Your task to perform on an android device: Clear the shopping cart on ebay.com. Add "asus zenbook" to the cart on ebay.com Image 0: 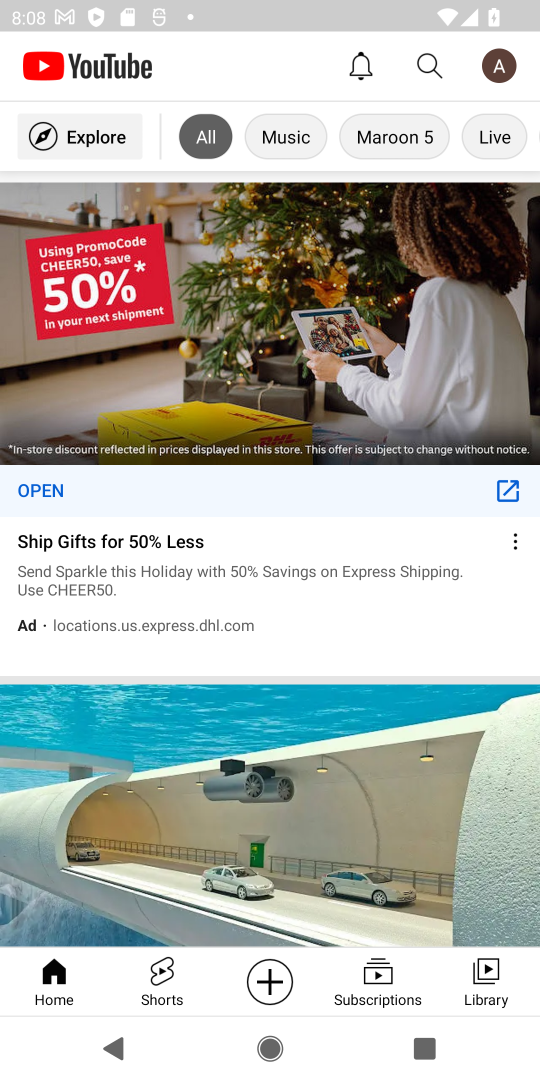
Step 0: press home button
Your task to perform on an android device: Clear the shopping cart on ebay.com. Add "asus zenbook" to the cart on ebay.com Image 1: 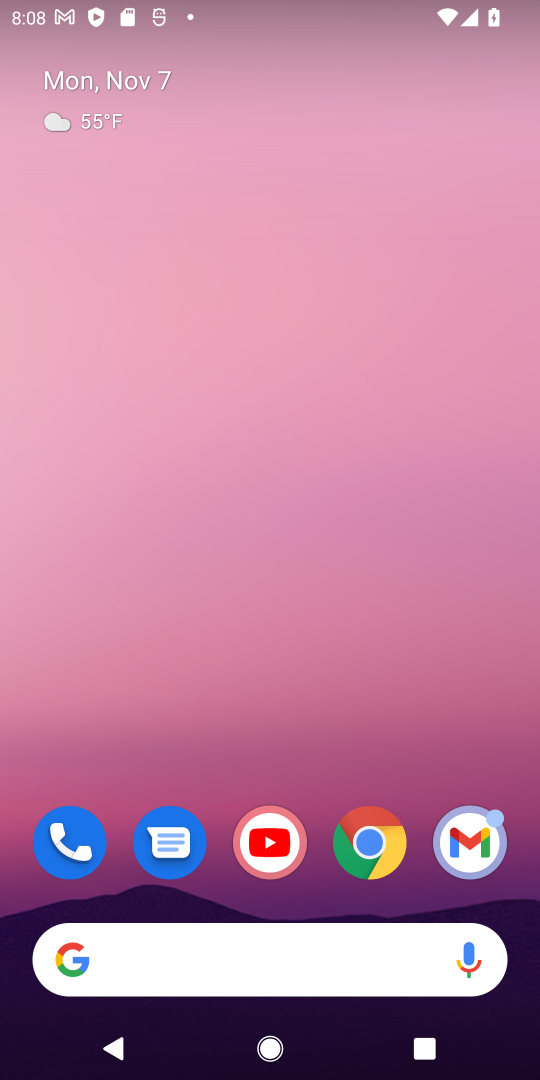
Step 1: click (364, 828)
Your task to perform on an android device: Clear the shopping cart on ebay.com. Add "asus zenbook" to the cart on ebay.com Image 2: 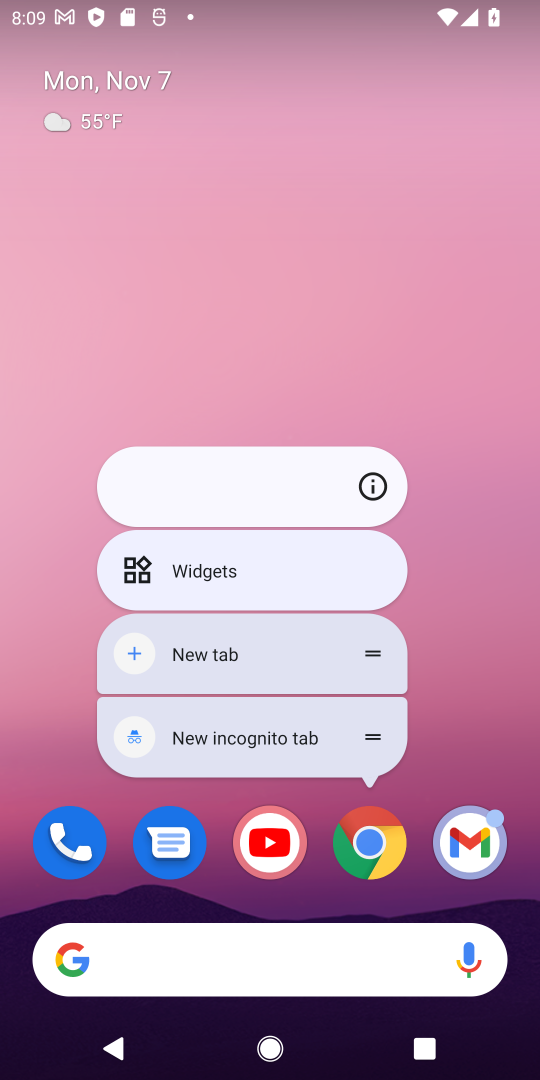
Step 2: click (367, 844)
Your task to perform on an android device: Clear the shopping cart on ebay.com. Add "asus zenbook" to the cart on ebay.com Image 3: 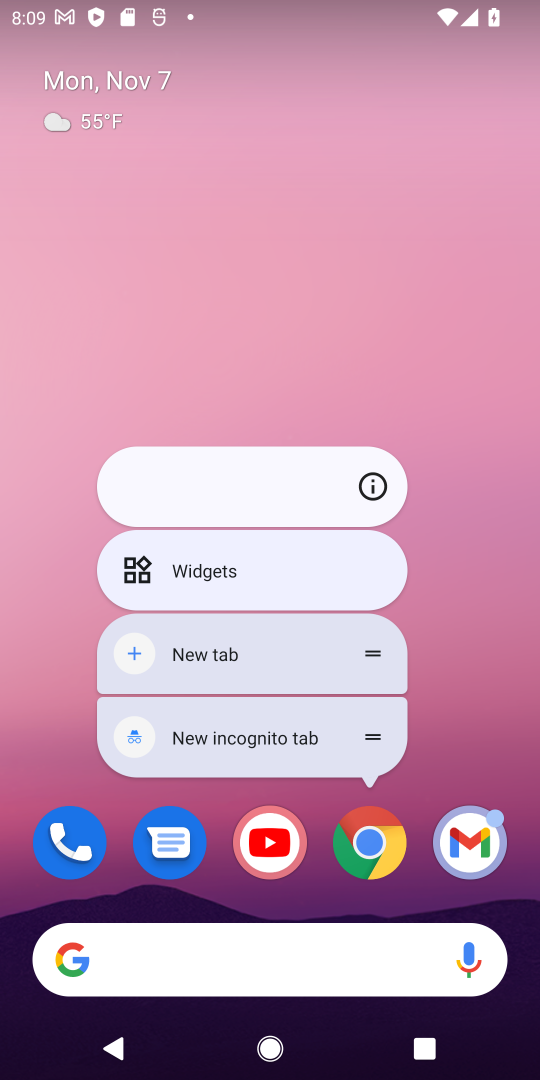
Step 3: click (367, 844)
Your task to perform on an android device: Clear the shopping cart on ebay.com. Add "asus zenbook" to the cart on ebay.com Image 4: 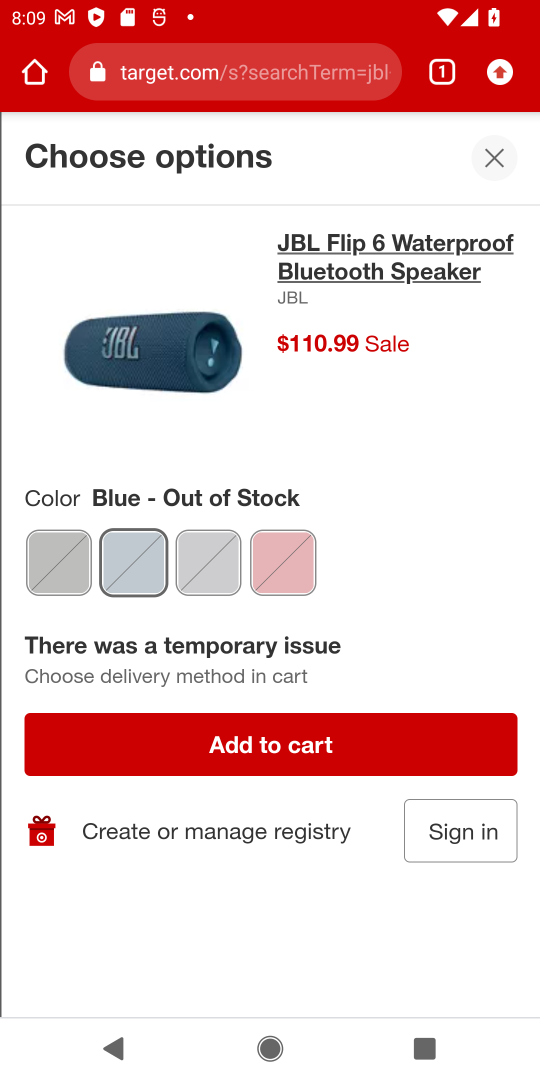
Step 4: press home button
Your task to perform on an android device: Clear the shopping cart on ebay.com. Add "asus zenbook" to the cart on ebay.com Image 5: 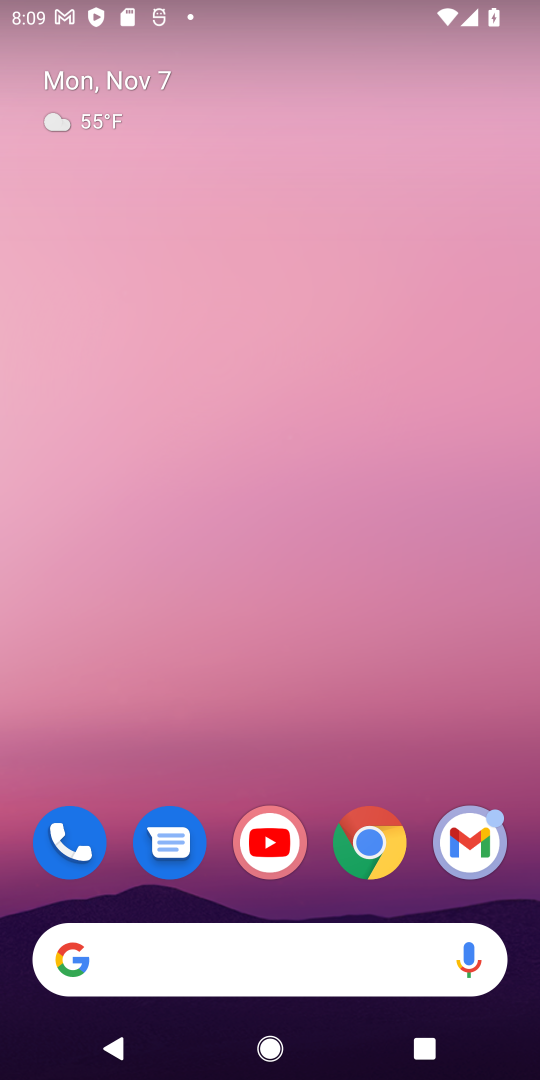
Step 5: click (377, 859)
Your task to perform on an android device: Clear the shopping cart on ebay.com. Add "asus zenbook" to the cart on ebay.com Image 6: 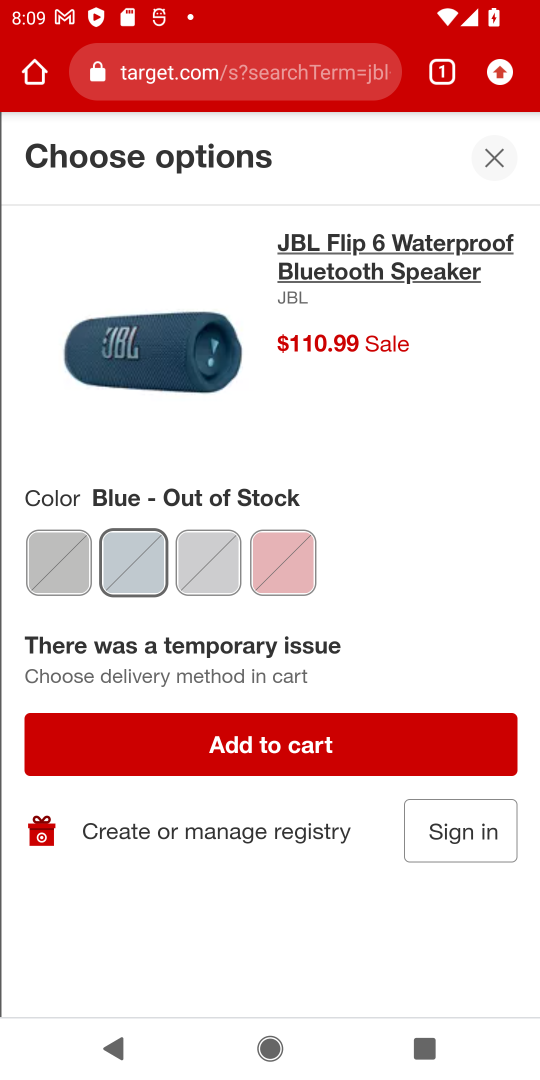
Step 6: click (264, 59)
Your task to perform on an android device: Clear the shopping cart on ebay.com. Add "asus zenbook" to the cart on ebay.com Image 7: 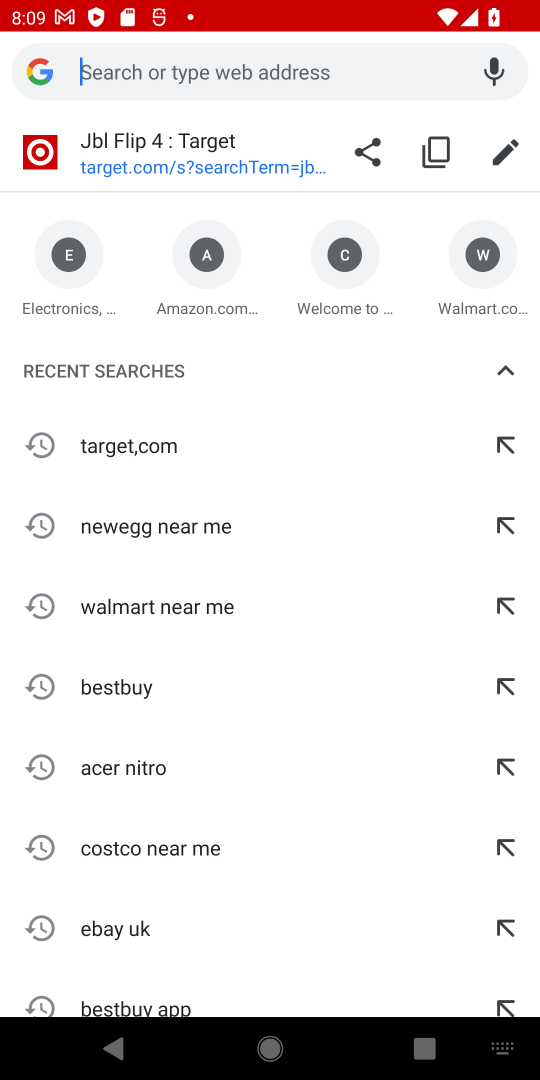
Step 7: click (60, 307)
Your task to perform on an android device: Clear the shopping cart on ebay.com. Add "asus zenbook" to the cart on ebay.com Image 8: 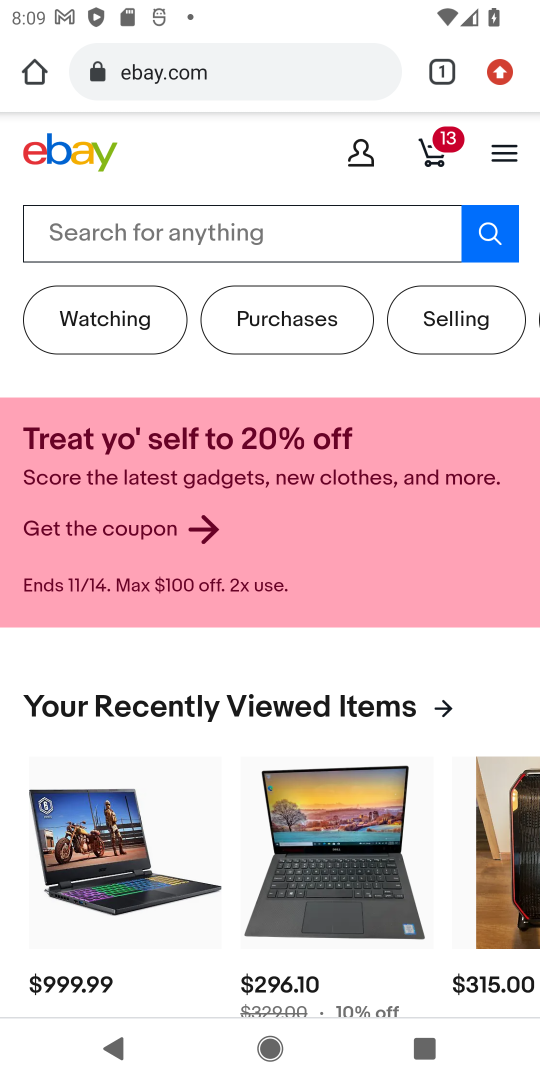
Step 8: click (178, 222)
Your task to perform on an android device: Clear the shopping cart on ebay.com. Add "asus zenbook" to the cart on ebay.com Image 9: 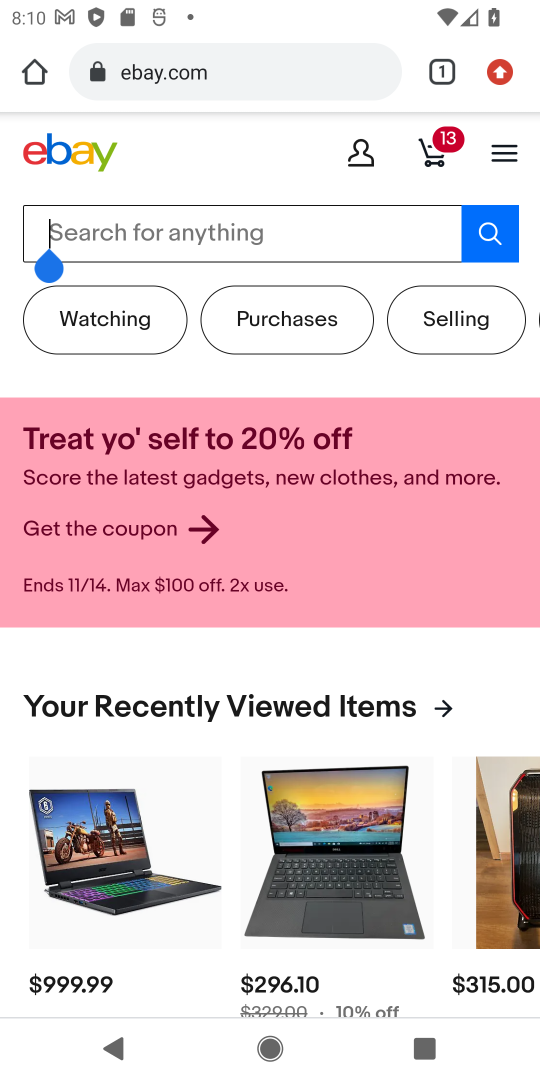
Step 9: type "asus zenbook"
Your task to perform on an android device: Clear the shopping cart on ebay.com. Add "asus zenbook" to the cart on ebay.com Image 10: 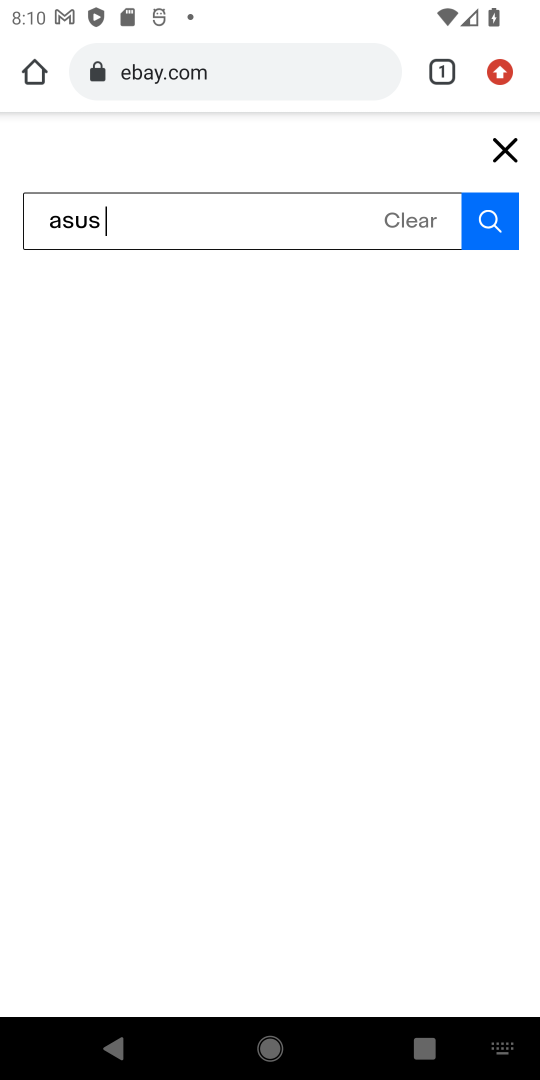
Step 10: press enter
Your task to perform on an android device: Clear the shopping cart on ebay.com. Add "asus zenbook" to the cart on ebay.com Image 11: 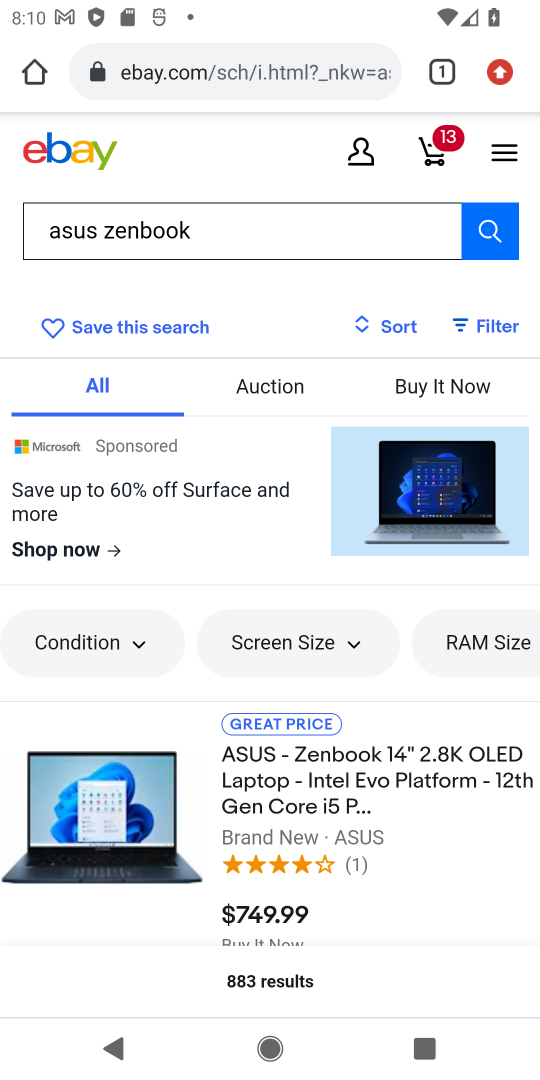
Step 11: drag from (185, 696) to (314, 155)
Your task to perform on an android device: Clear the shopping cart on ebay.com. Add "asus zenbook" to the cart on ebay.com Image 12: 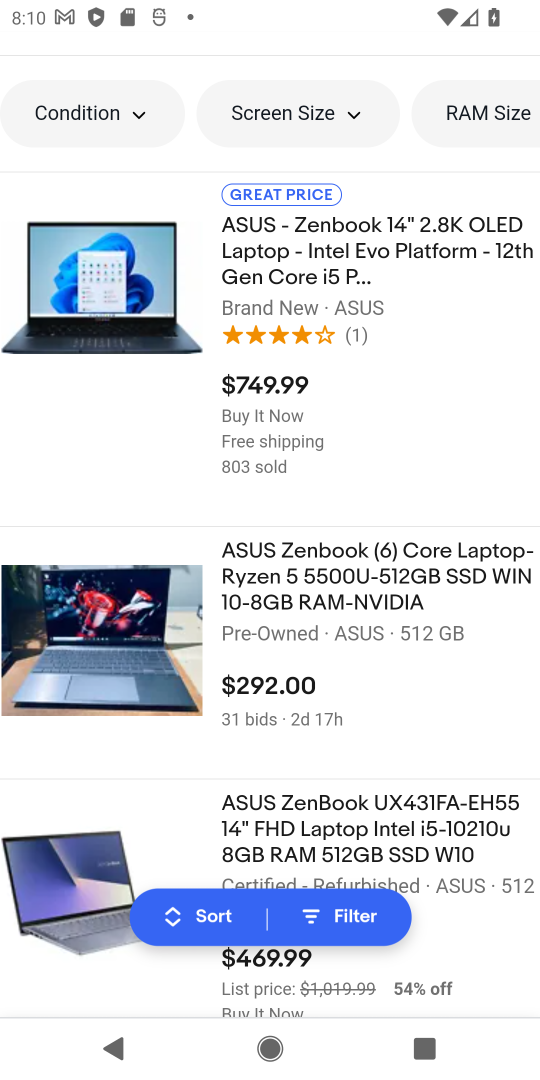
Step 12: drag from (437, 411) to (510, 983)
Your task to perform on an android device: Clear the shopping cart on ebay.com. Add "asus zenbook" to the cart on ebay.com Image 13: 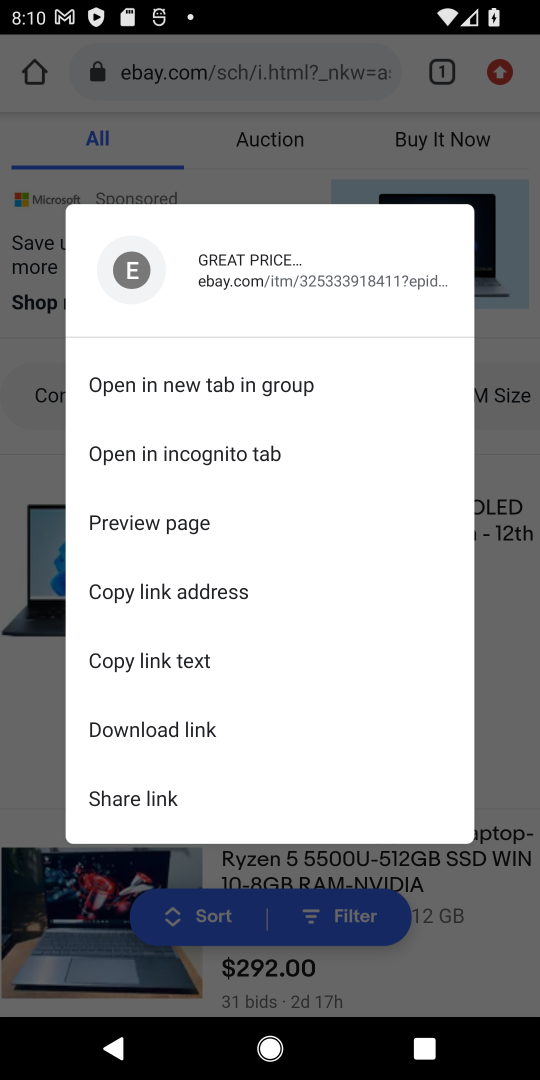
Step 13: click (513, 450)
Your task to perform on an android device: Clear the shopping cart on ebay.com. Add "asus zenbook" to the cart on ebay.com Image 14: 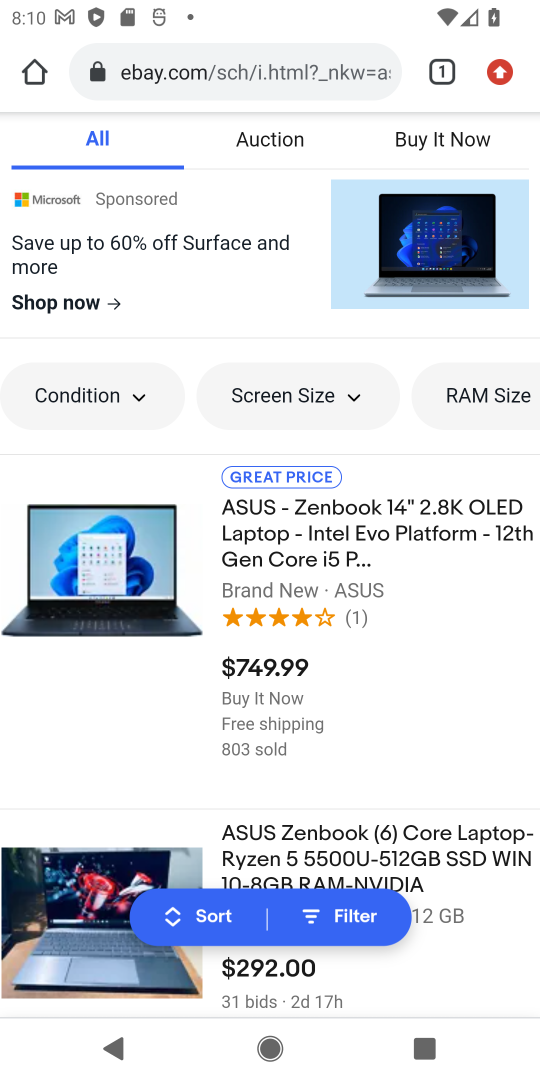
Step 14: drag from (194, 427) to (250, 885)
Your task to perform on an android device: Clear the shopping cart on ebay.com. Add "asus zenbook" to the cart on ebay.com Image 15: 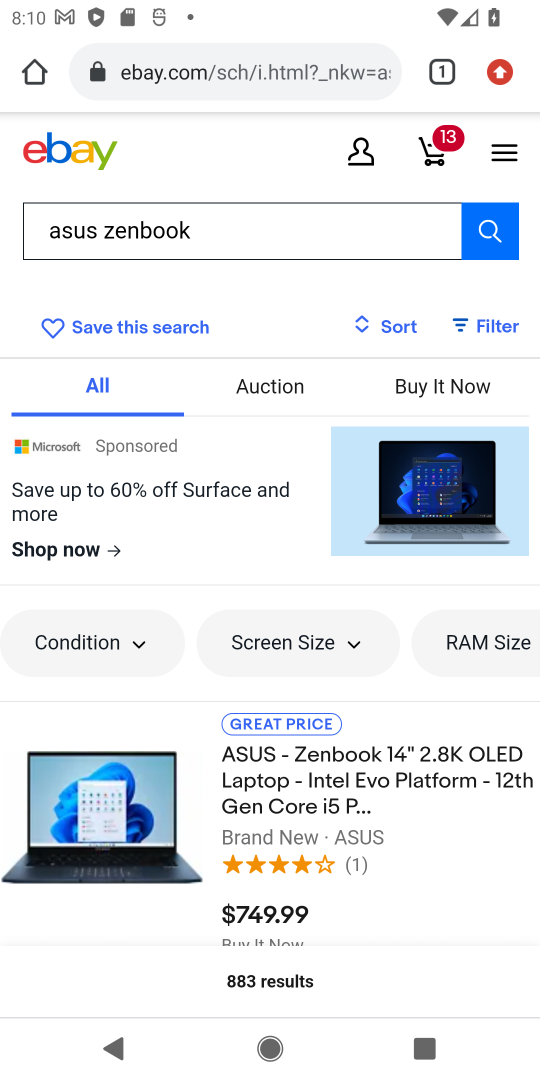
Step 15: drag from (204, 866) to (229, 366)
Your task to perform on an android device: Clear the shopping cart on ebay.com. Add "asus zenbook" to the cart on ebay.com Image 16: 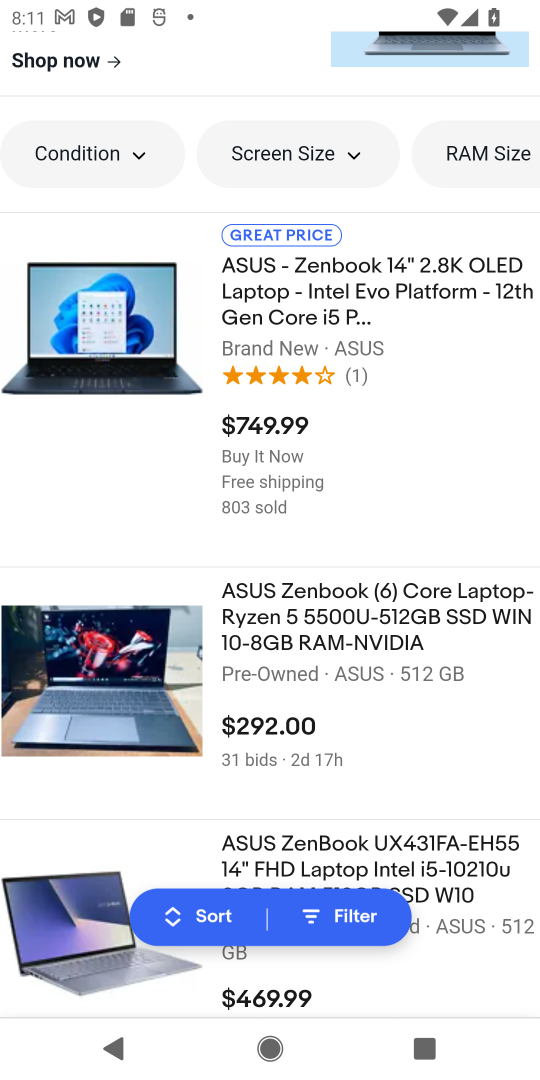
Step 16: click (359, 406)
Your task to perform on an android device: Clear the shopping cart on ebay.com. Add "asus zenbook" to the cart on ebay.com Image 17: 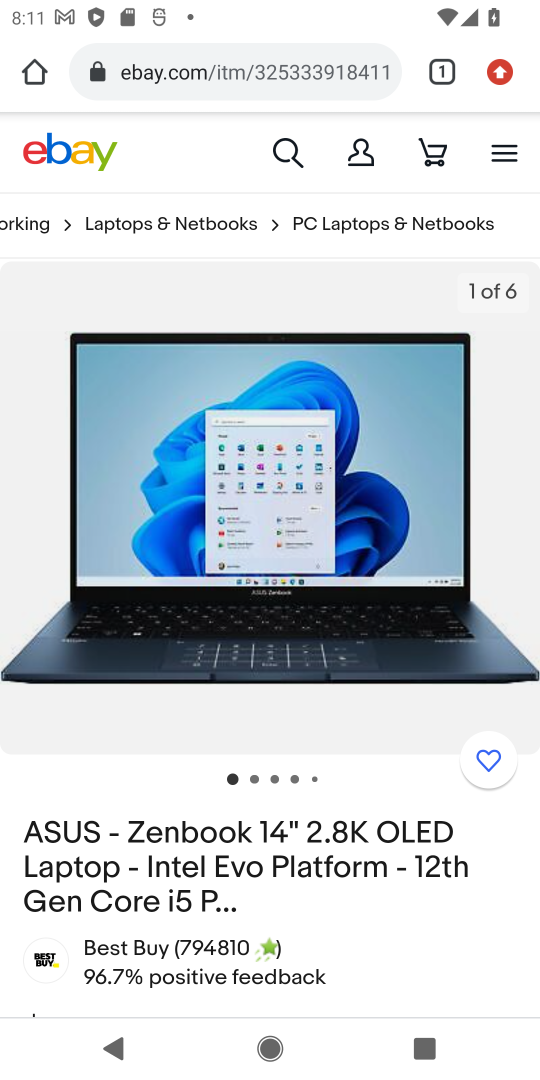
Step 17: drag from (284, 674) to (449, 25)
Your task to perform on an android device: Clear the shopping cart on ebay.com. Add "asus zenbook" to the cart on ebay.com Image 18: 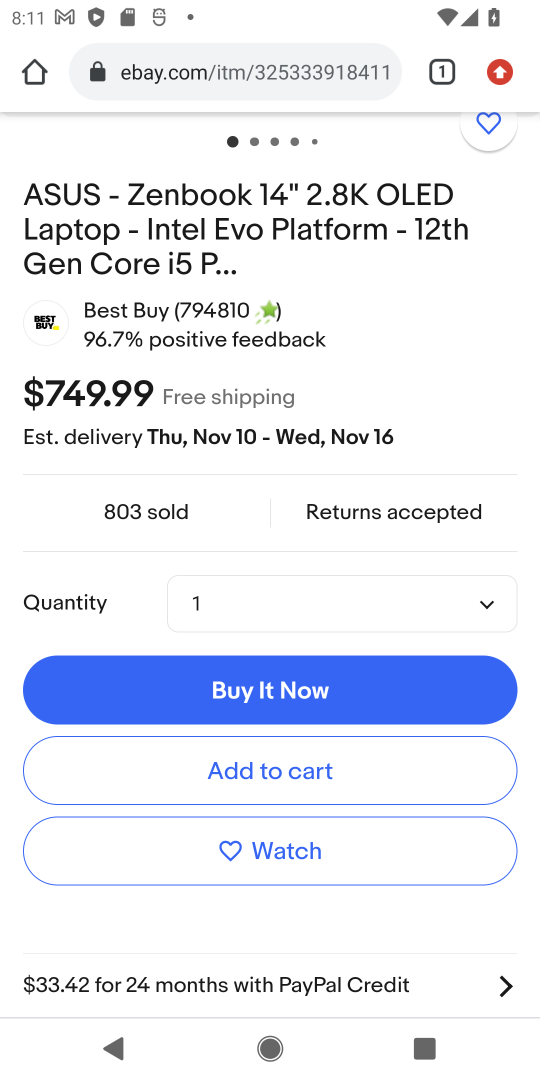
Step 18: click (280, 761)
Your task to perform on an android device: Clear the shopping cart on ebay.com. Add "asus zenbook" to the cart on ebay.com Image 19: 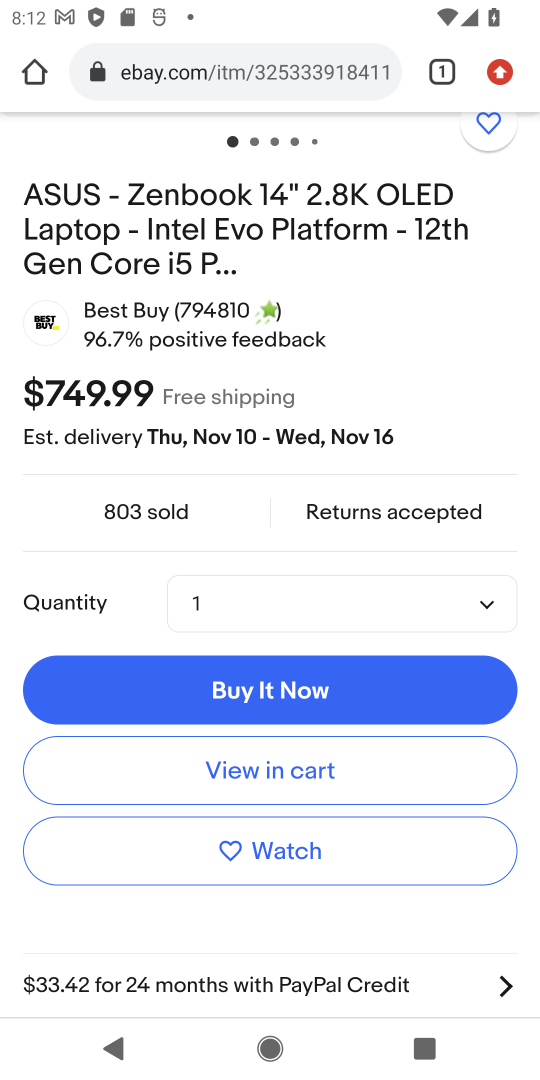
Step 19: task complete